Your task to perform on an android device: remove spam from my inbox in the gmail app Image 0: 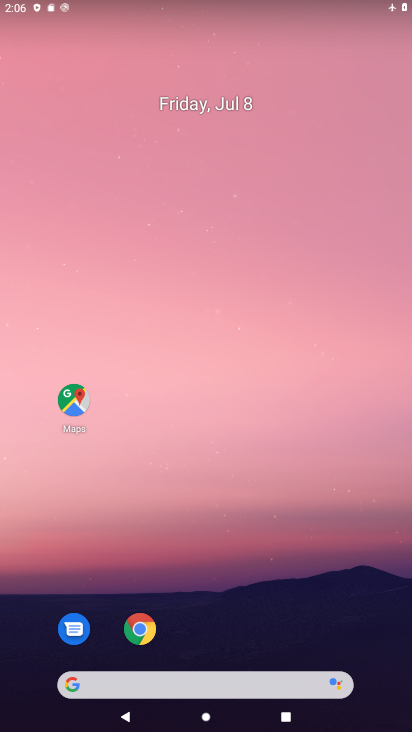
Step 0: drag from (185, 364) to (261, 0)
Your task to perform on an android device: remove spam from my inbox in the gmail app Image 1: 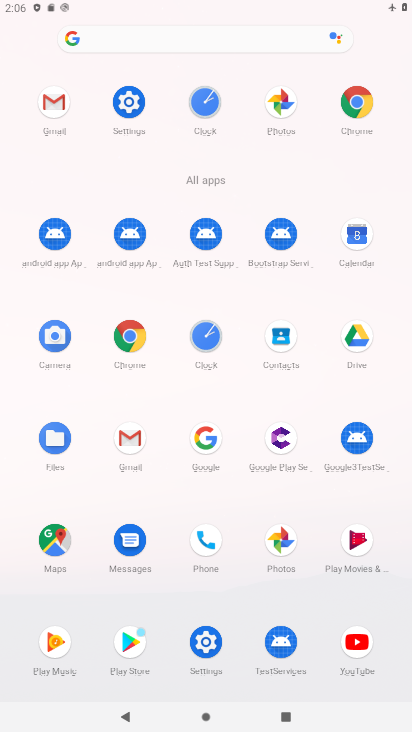
Step 1: click (128, 446)
Your task to perform on an android device: remove spam from my inbox in the gmail app Image 2: 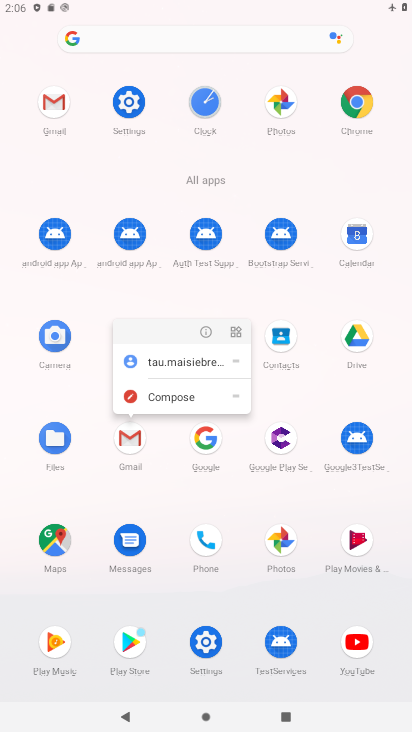
Step 2: click (131, 452)
Your task to perform on an android device: remove spam from my inbox in the gmail app Image 3: 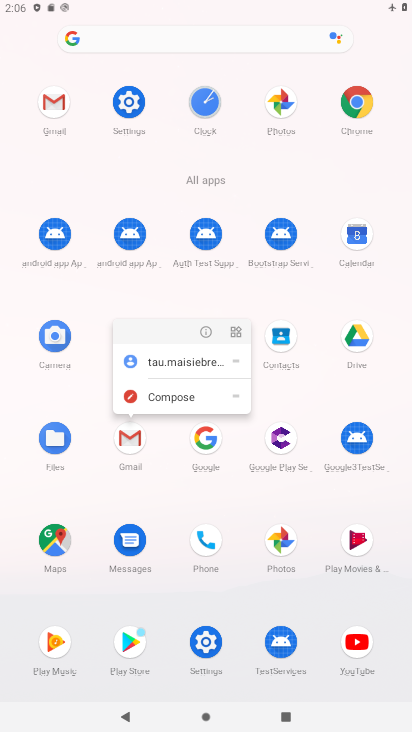
Step 3: click (128, 438)
Your task to perform on an android device: remove spam from my inbox in the gmail app Image 4: 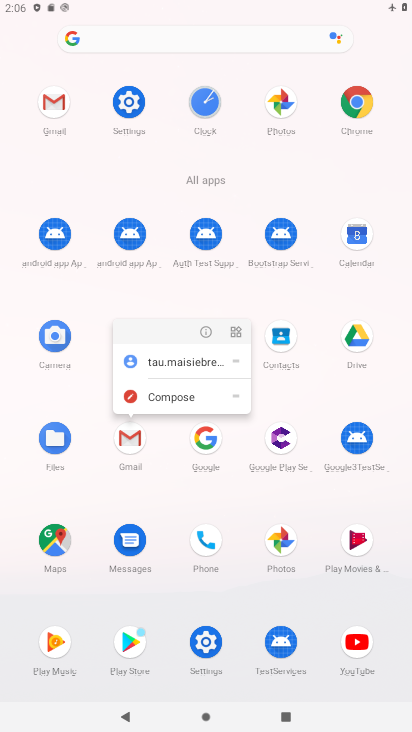
Step 4: click (127, 446)
Your task to perform on an android device: remove spam from my inbox in the gmail app Image 5: 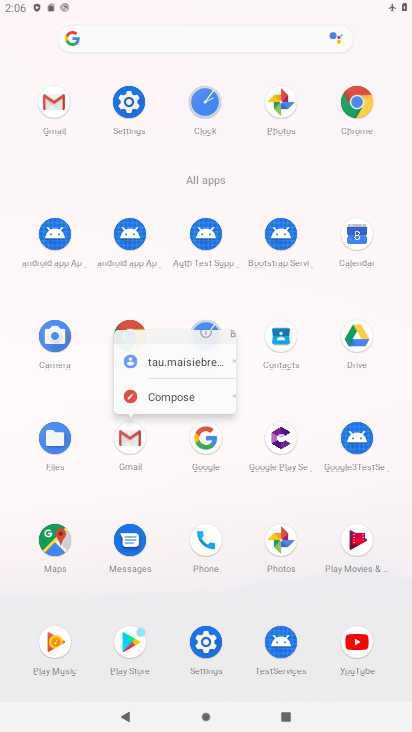
Step 5: click (127, 446)
Your task to perform on an android device: remove spam from my inbox in the gmail app Image 6: 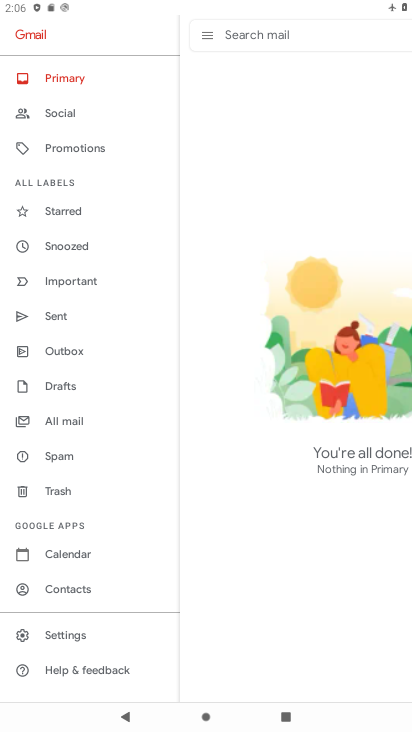
Step 6: click (52, 455)
Your task to perform on an android device: remove spam from my inbox in the gmail app Image 7: 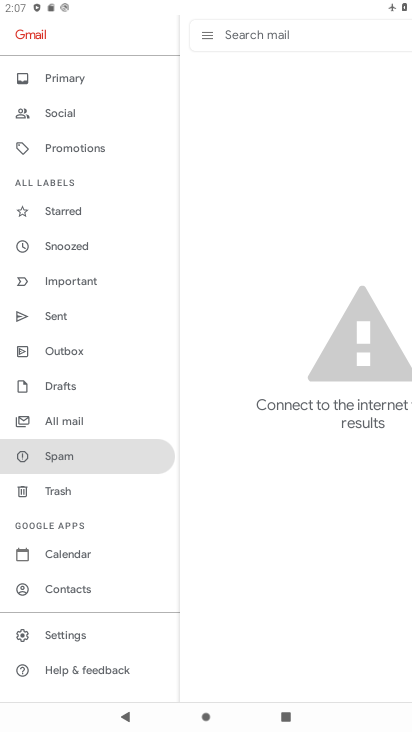
Step 7: task complete